Your task to perform on an android device: Check the news Image 0: 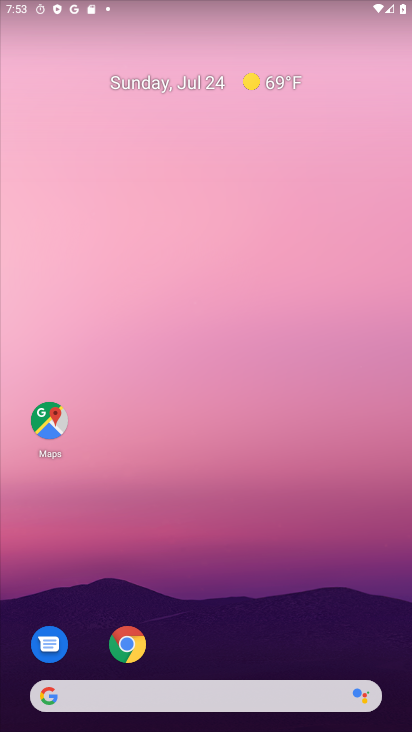
Step 0: drag from (122, 681) to (107, 357)
Your task to perform on an android device: Check the news Image 1: 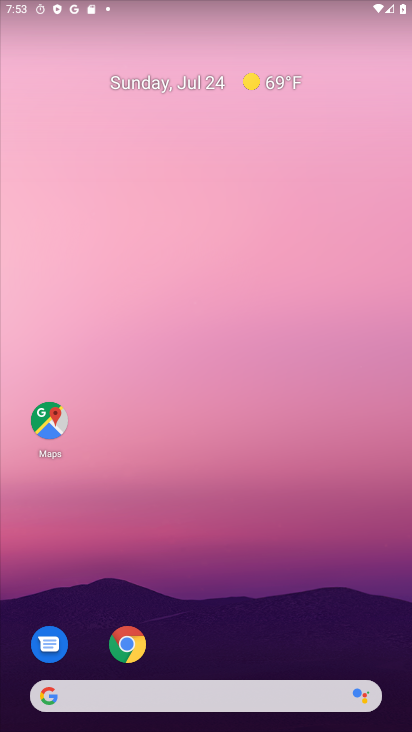
Step 1: drag from (253, 677) to (228, 217)
Your task to perform on an android device: Check the news Image 2: 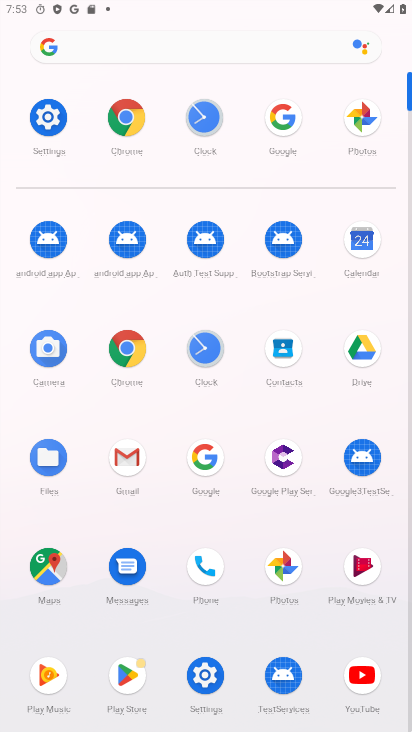
Step 2: click (195, 454)
Your task to perform on an android device: Check the news Image 3: 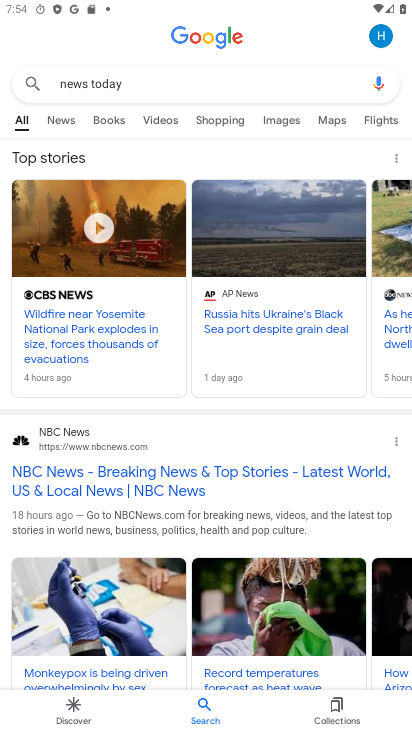
Step 3: task complete